Your task to perform on an android device: find snoozed emails in the gmail app Image 0: 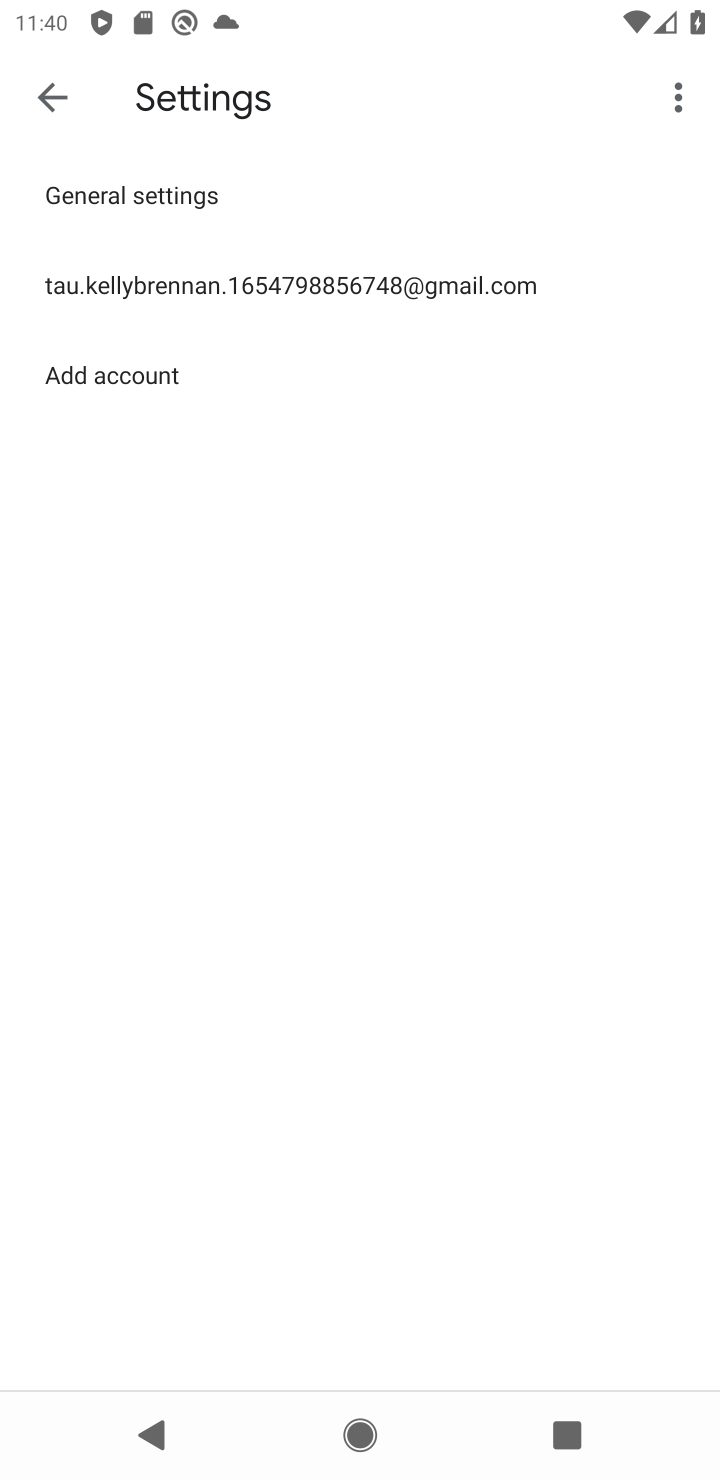
Step 0: click (40, 108)
Your task to perform on an android device: find snoozed emails in the gmail app Image 1: 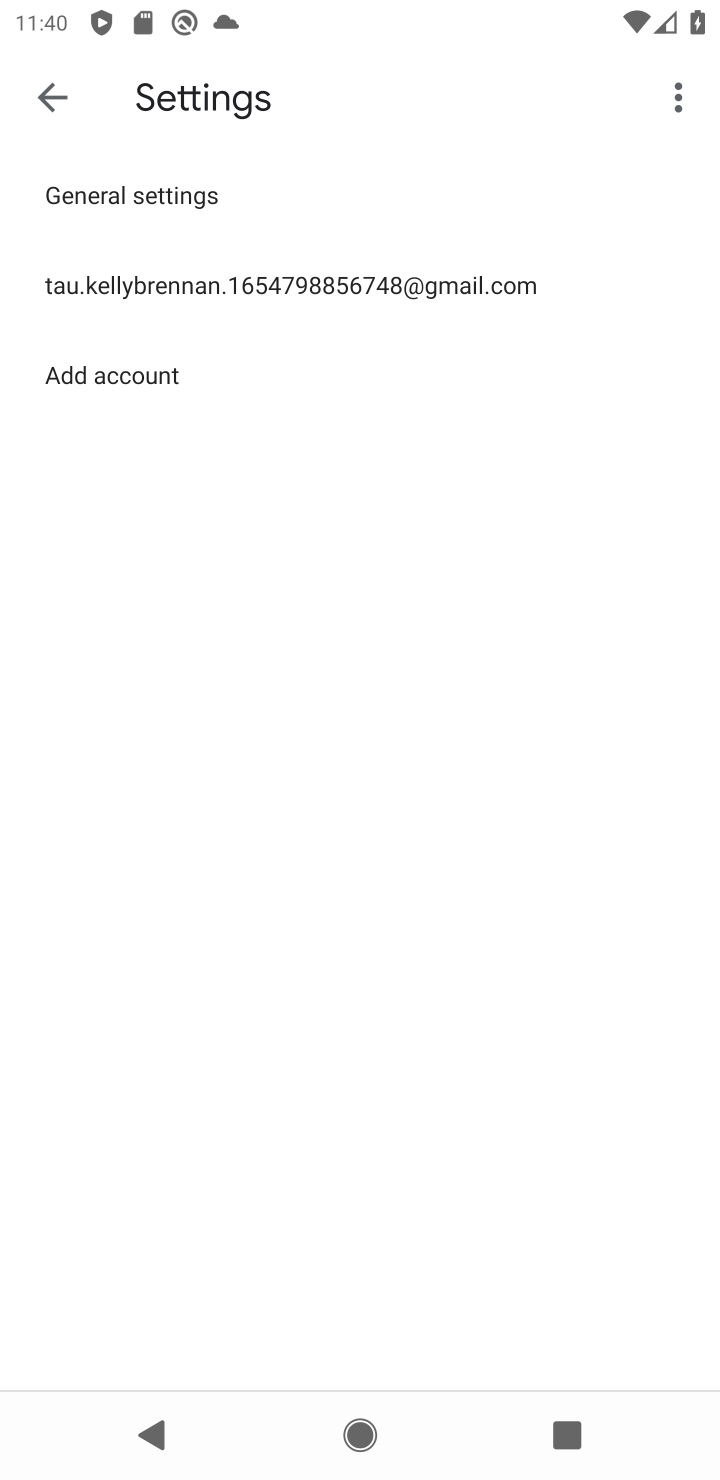
Step 1: click (48, 101)
Your task to perform on an android device: find snoozed emails in the gmail app Image 2: 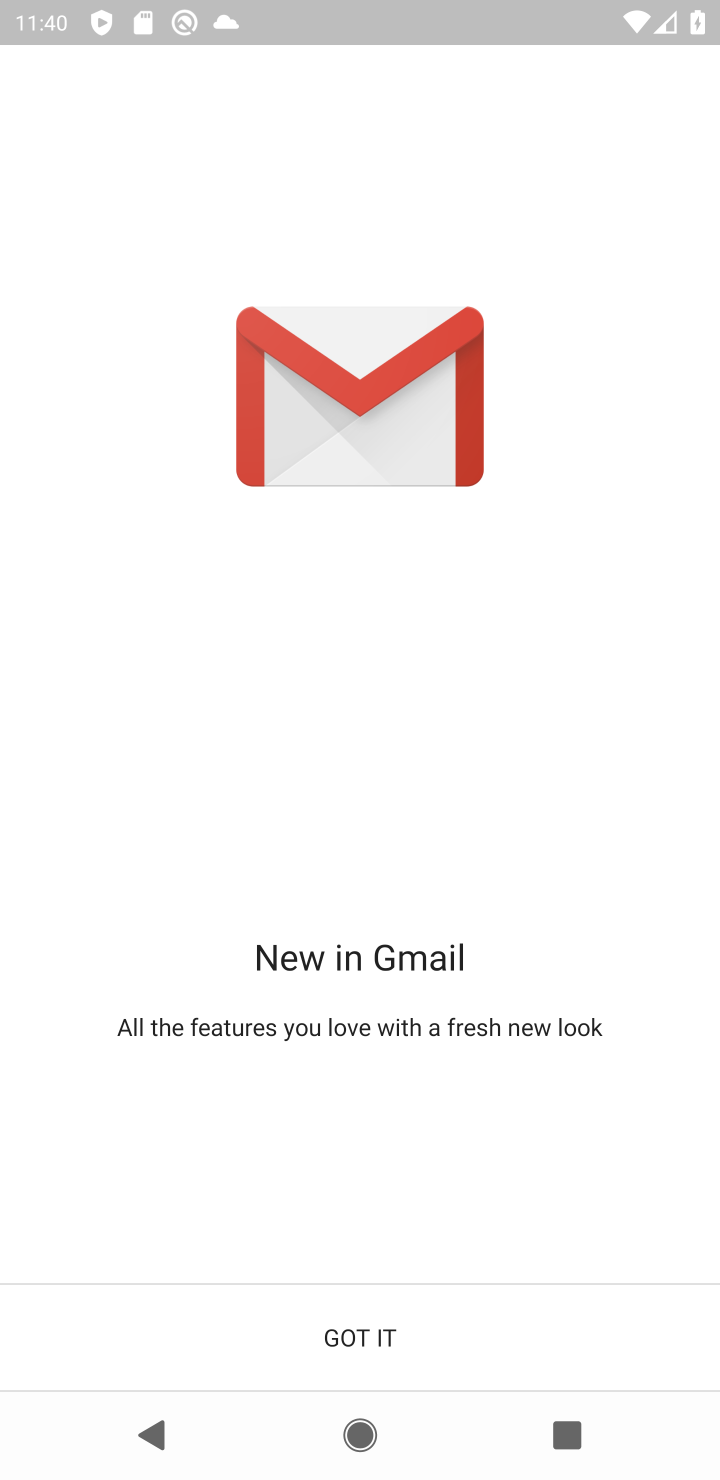
Step 2: click (331, 1357)
Your task to perform on an android device: find snoozed emails in the gmail app Image 3: 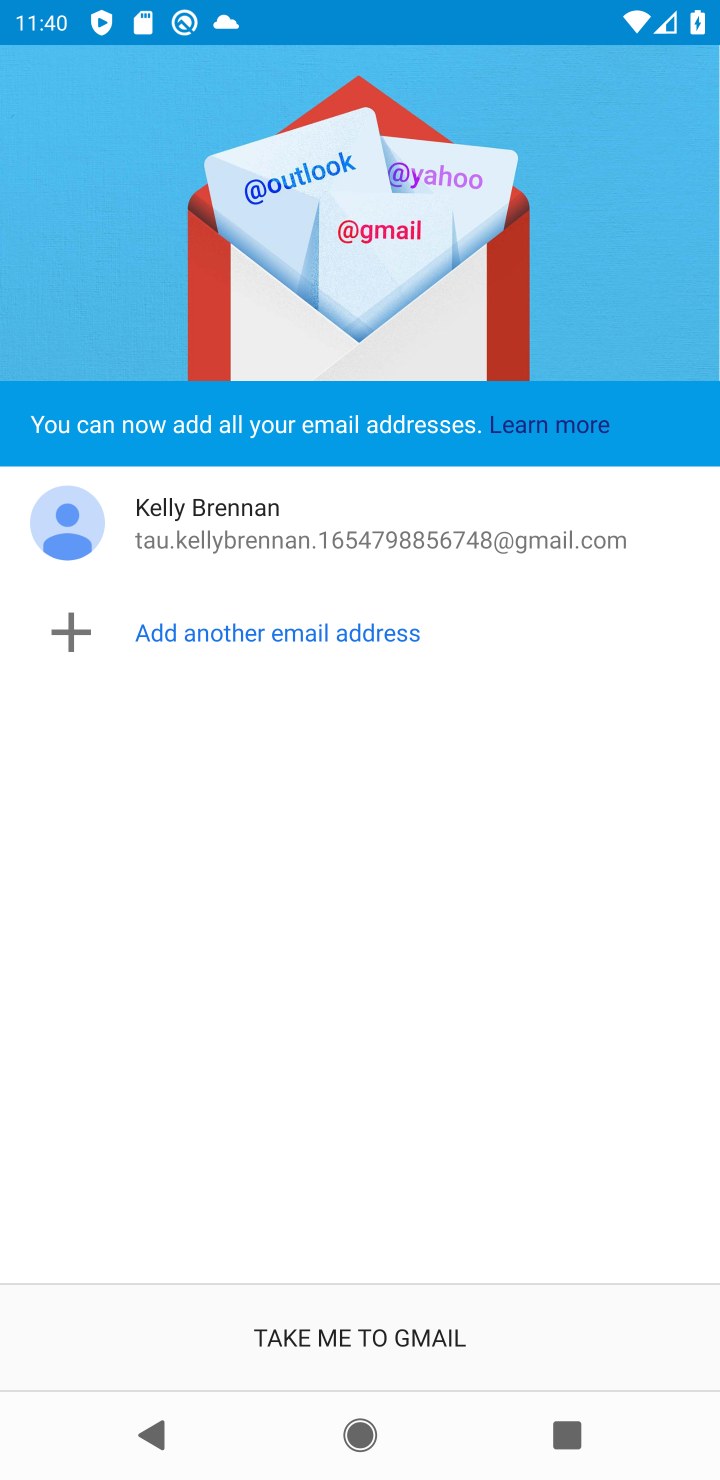
Step 3: click (319, 1331)
Your task to perform on an android device: find snoozed emails in the gmail app Image 4: 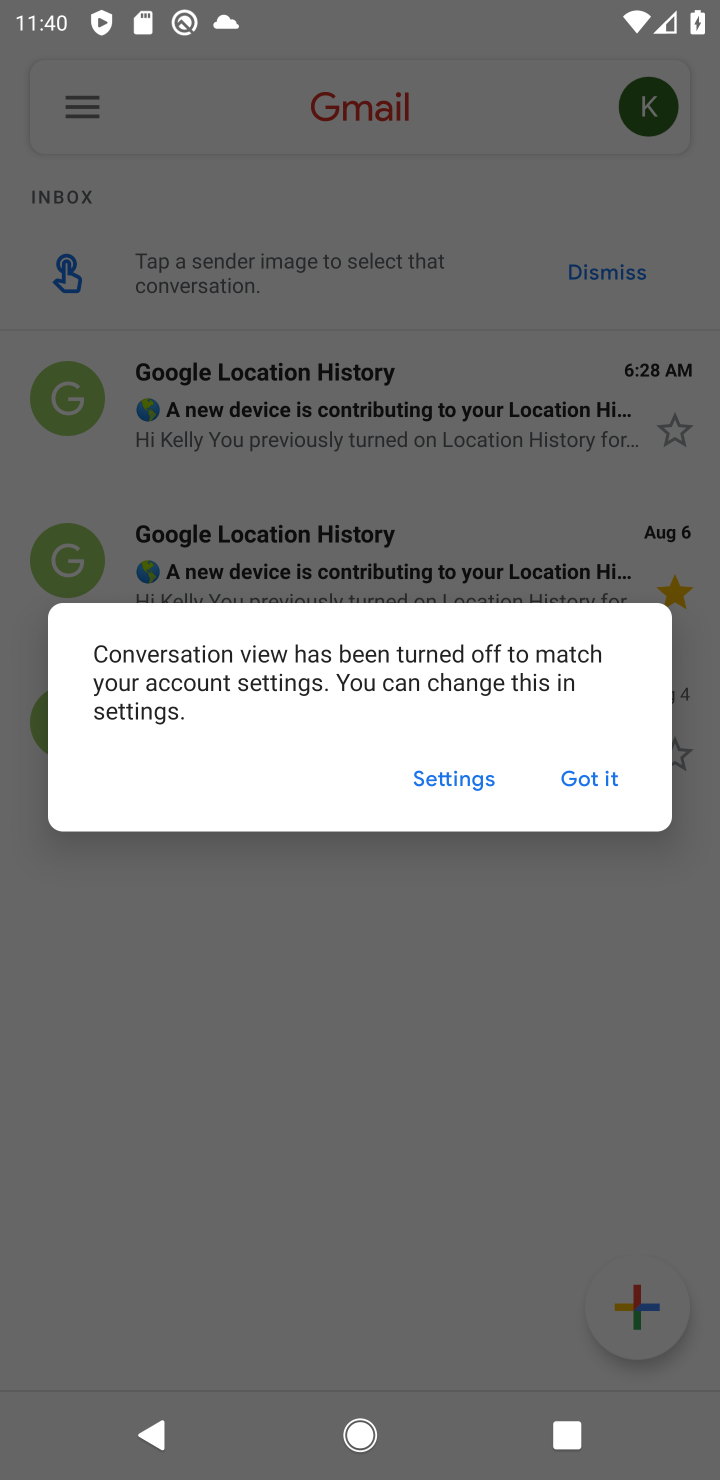
Step 4: click (584, 785)
Your task to perform on an android device: find snoozed emails in the gmail app Image 5: 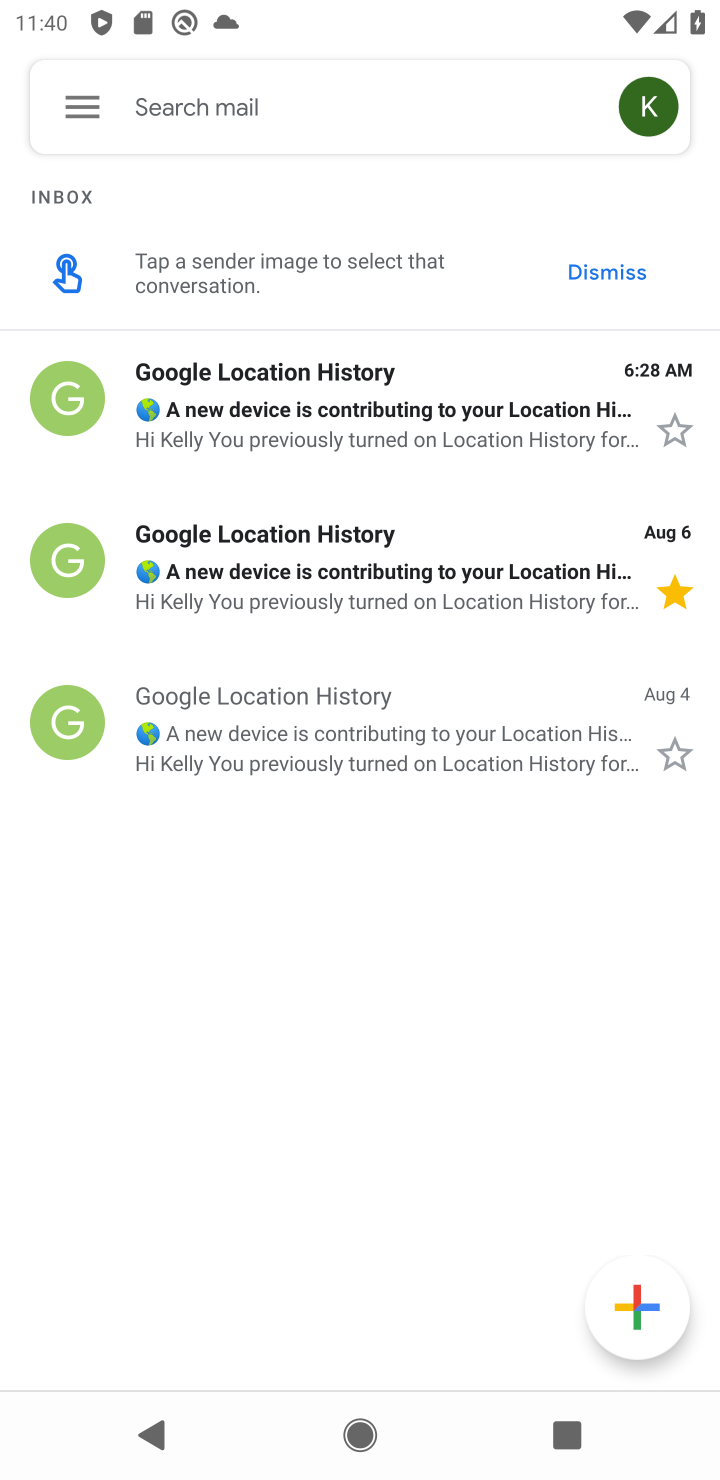
Step 5: click (61, 105)
Your task to perform on an android device: find snoozed emails in the gmail app Image 6: 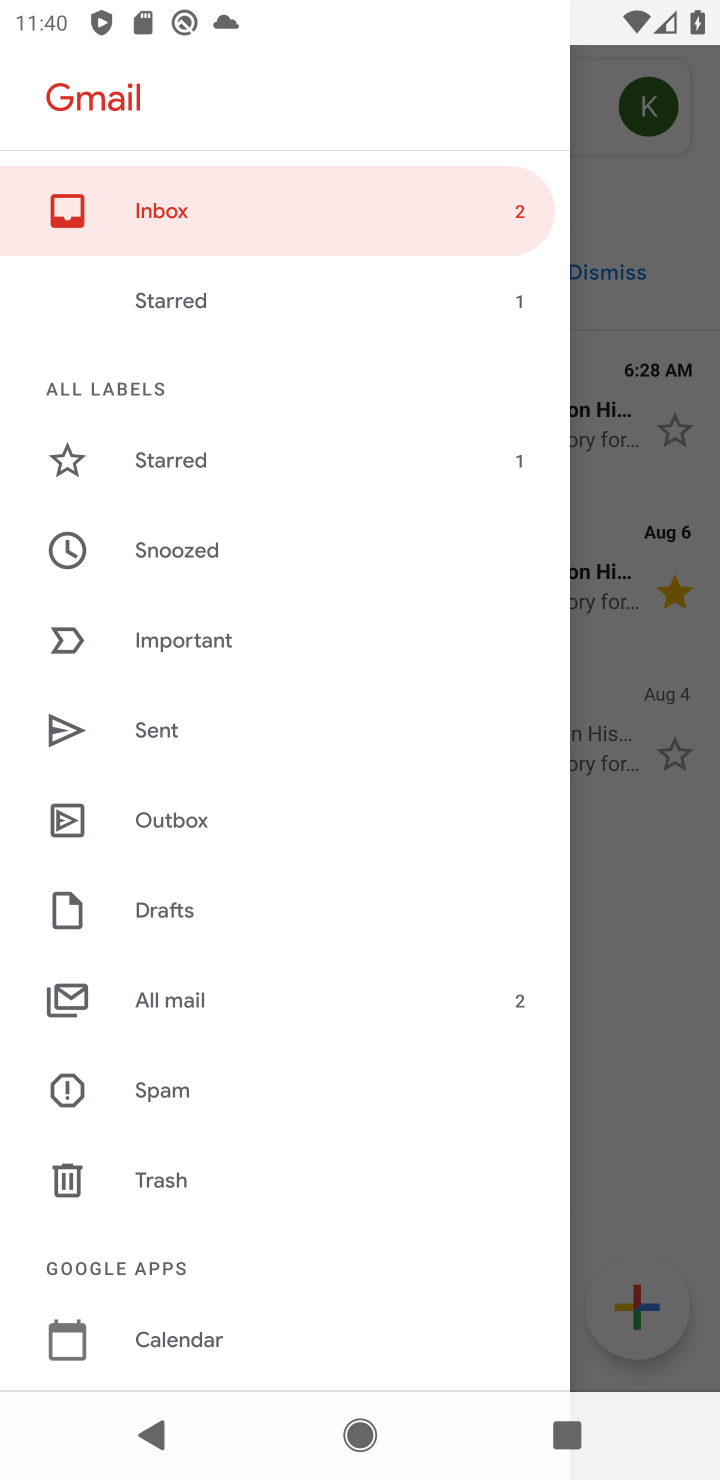
Step 6: drag from (359, 1246) to (337, 529)
Your task to perform on an android device: find snoozed emails in the gmail app Image 7: 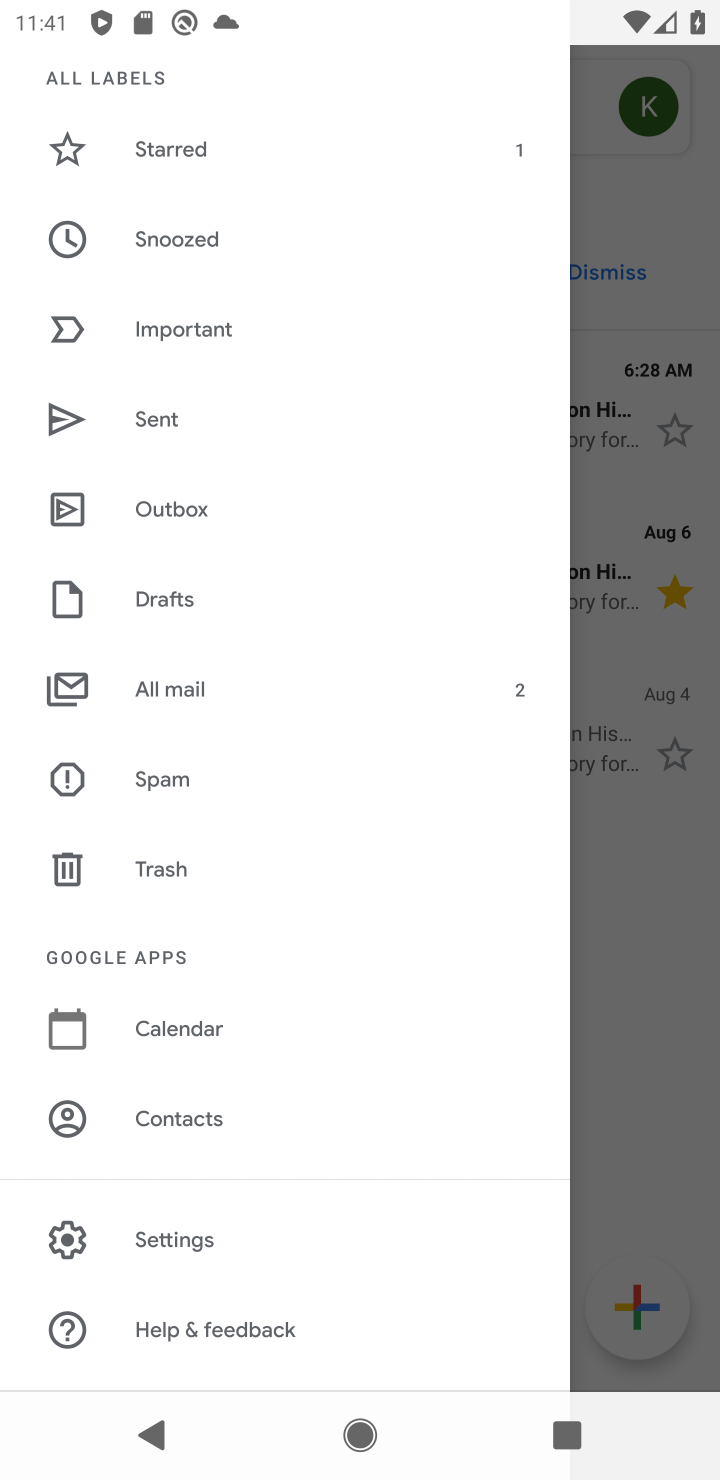
Step 7: click (178, 240)
Your task to perform on an android device: find snoozed emails in the gmail app Image 8: 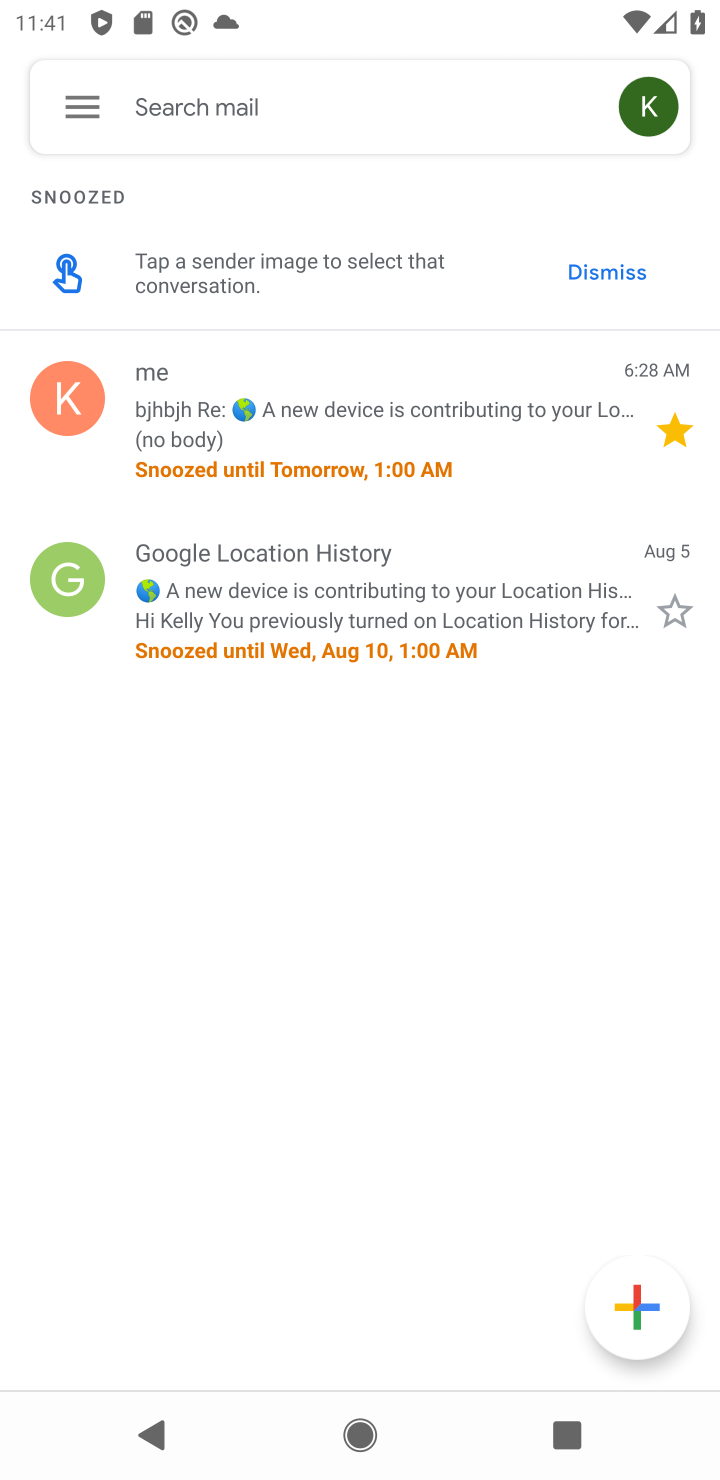
Step 8: task complete